Your task to perform on an android device: turn off javascript in the chrome app Image 0: 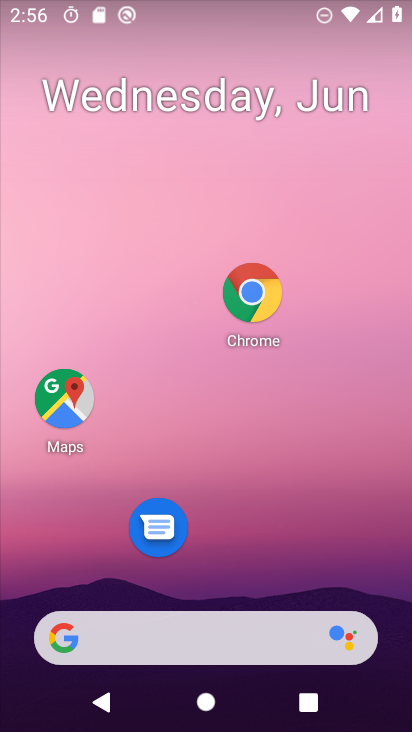
Step 0: drag from (225, 459) to (257, 109)
Your task to perform on an android device: turn off javascript in the chrome app Image 1: 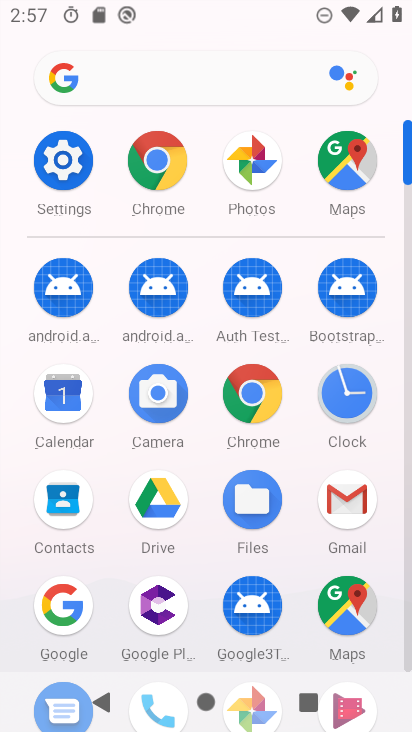
Step 1: click (260, 415)
Your task to perform on an android device: turn off javascript in the chrome app Image 2: 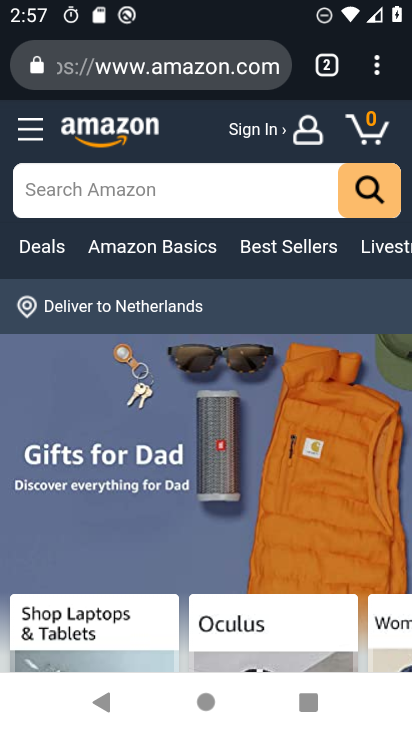
Step 2: click (380, 79)
Your task to perform on an android device: turn off javascript in the chrome app Image 3: 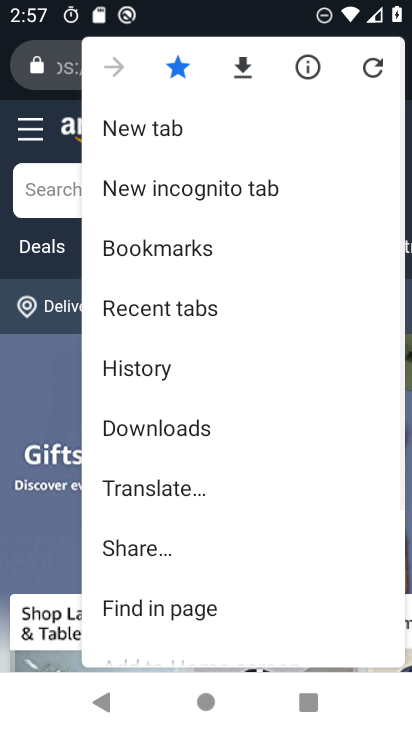
Step 3: drag from (249, 409) to (290, 183)
Your task to perform on an android device: turn off javascript in the chrome app Image 4: 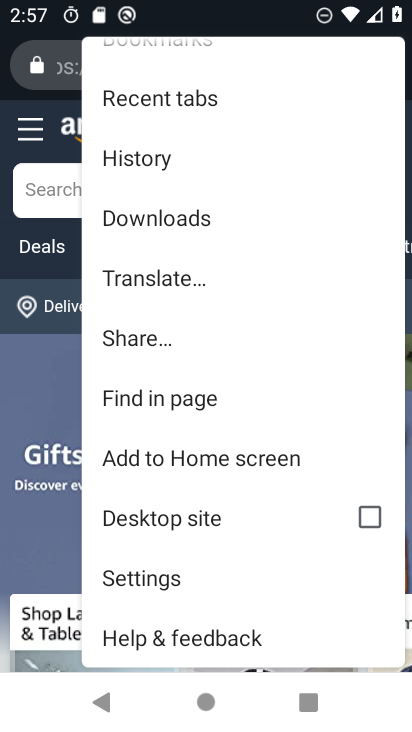
Step 4: click (159, 570)
Your task to perform on an android device: turn off javascript in the chrome app Image 5: 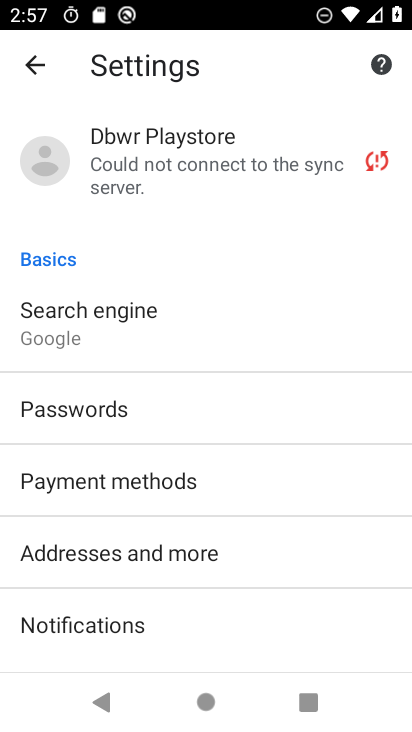
Step 5: drag from (171, 562) to (131, 253)
Your task to perform on an android device: turn off javascript in the chrome app Image 6: 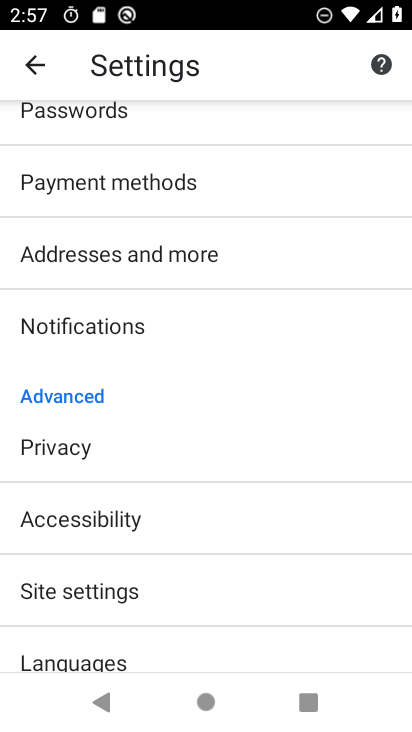
Step 6: click (112, 592)
Your task to perform on an android device: turn off javascript in the chrome app Image 7: 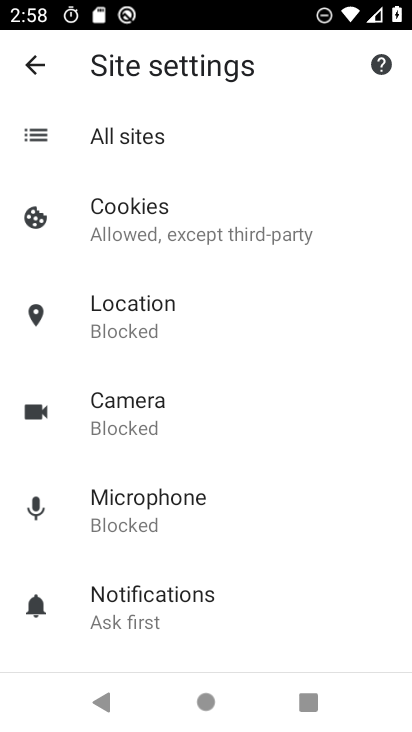
Step 7: drag from (174, 500) to (174, 234)
Your task to perform on an android device: turn off javascript in the chrome app Image 8: 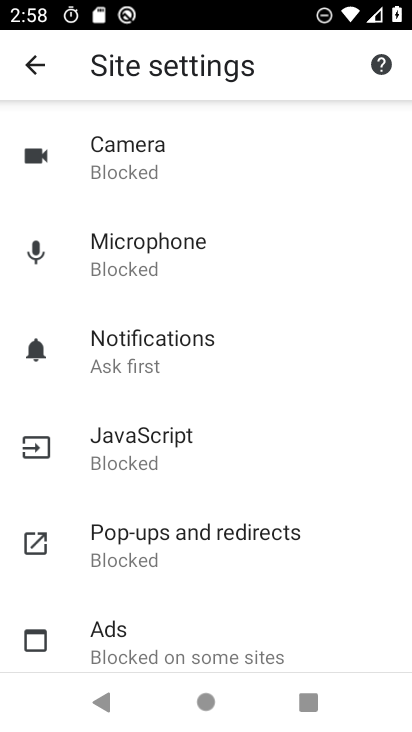
Step 8: click (194, 465)
Your task to perform on an android device: turn off javascript in the chrome app Image 9: 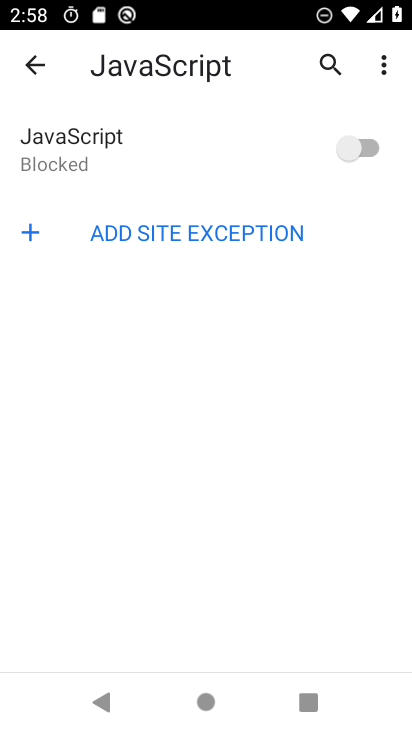
Step 9: task complete